Your task to perform on an android device: turn off picture-in-picture Image 0: 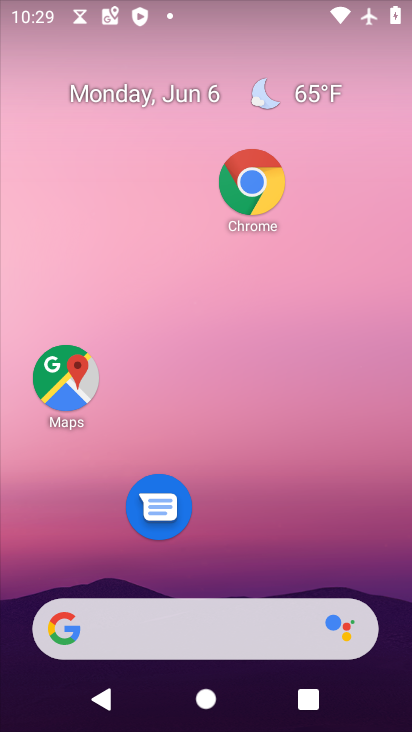
Step 0: drag from (270, 506) to (306, 200)
Your task to perform on an android device: turn off picture-in-picture Image 1: 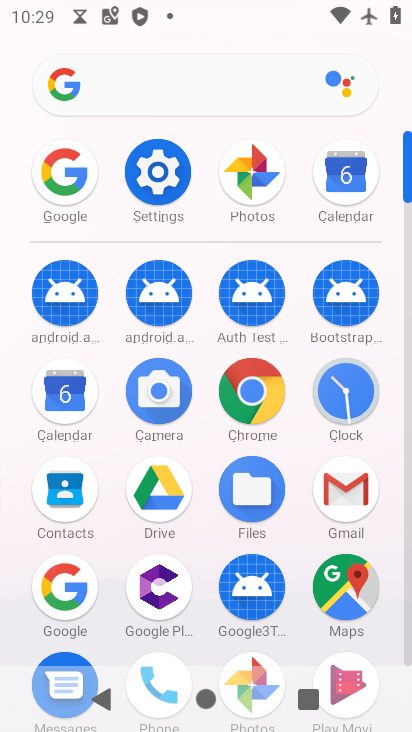
Step 1: click (157, 170)
Your task to perform on an android device: turn off picture-in-picture Image 2: 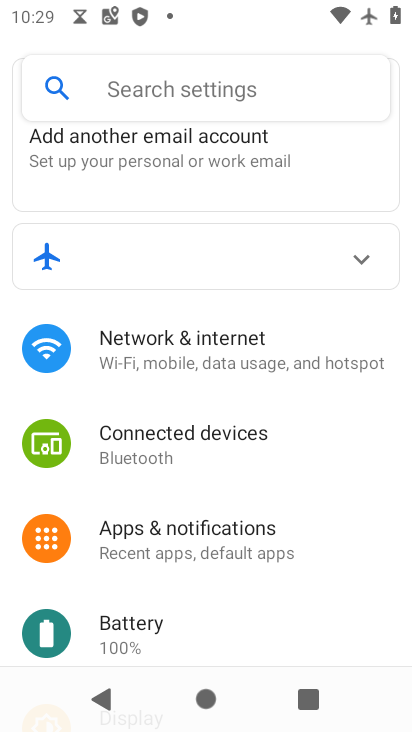
Step 2: click (254, 365)
Your task to perform on an android device: turn off picture-in-picture Image 3: 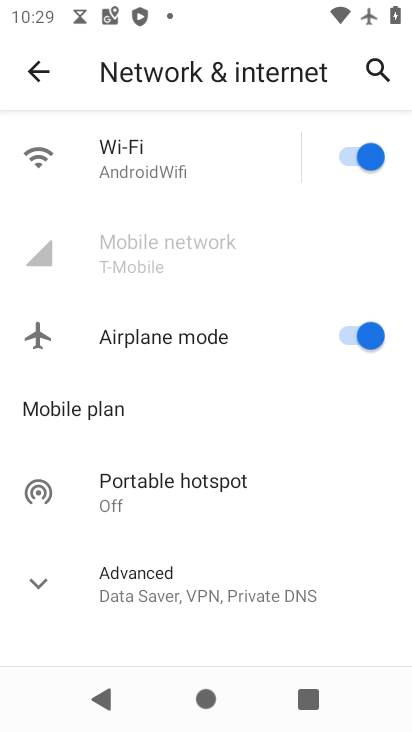
Step 3: drag from (203, 546) to (224, 190)
Your task to perform on an android device: turn off picture-in-picture Image 4: 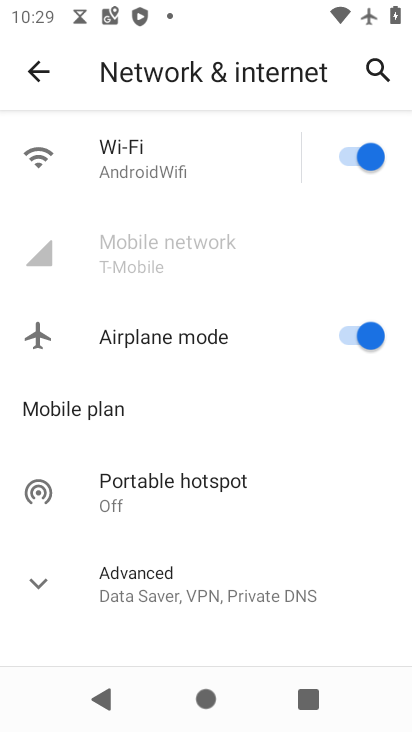
Step 4: click (17, 52)
Your task to perform on an android device: turn off picture-in-picture Image 5: 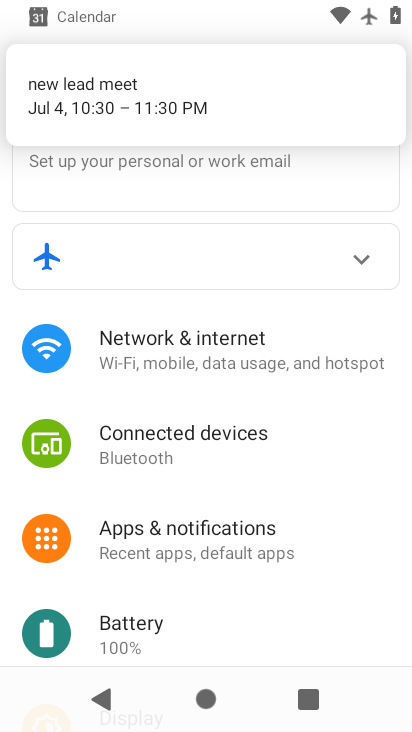
Step 5: click (213, 531)
Your task to perform on an android device: turn off picture-in-picture Image 6: 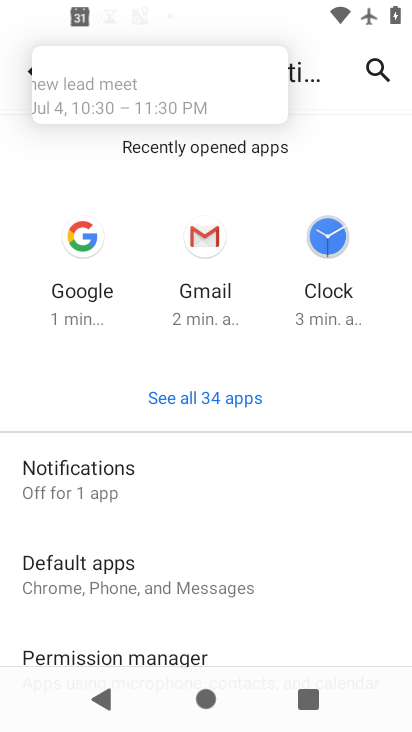
Step 6: drag from (176, 607) to (199, 328)
Your task to perform on an android device: turn off picture-in-picture Image 7: 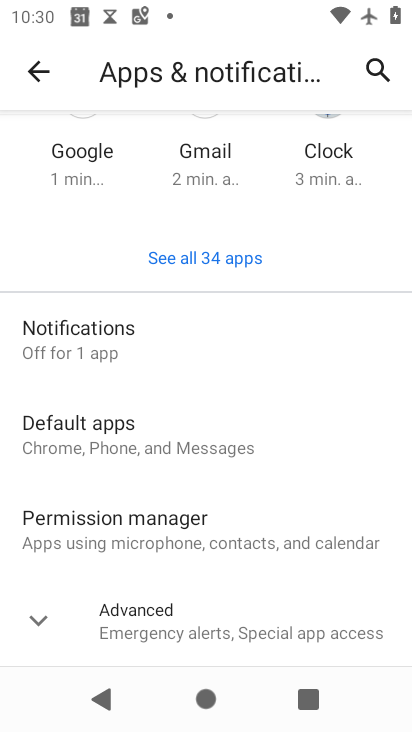
Step 7: click (175, 625)
Your task to perform on an android device: turn off picture-in-picture Image 8: 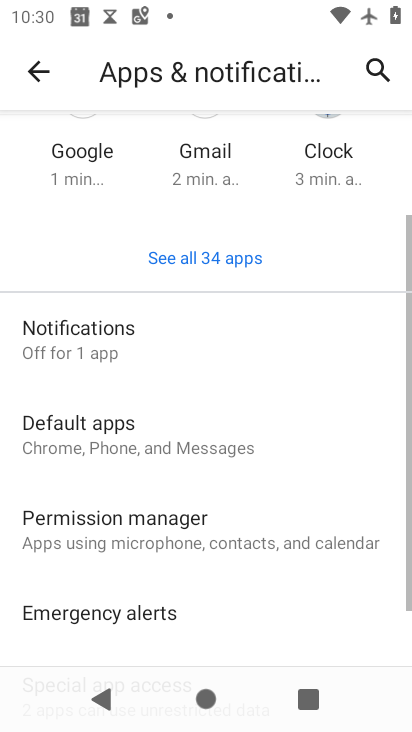
Step 8: drag from (178, 609) to (204, 231)
Your task to perform on an android device: turn off picture-in-picture Image 9: 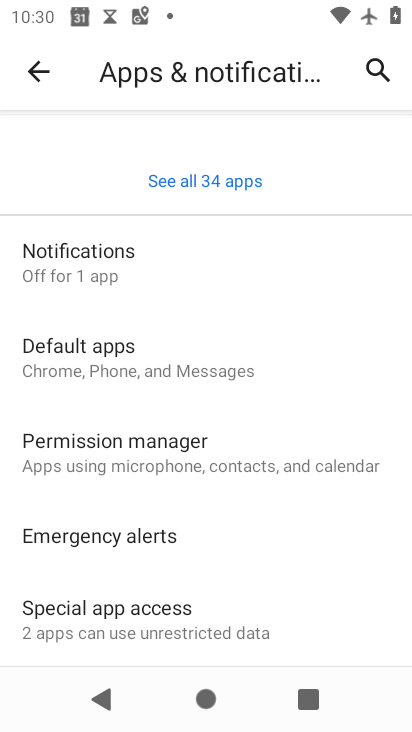
Step 9: click (169, 619)
Your task to perform on an android device: turn off picture-in-picture Image 10: 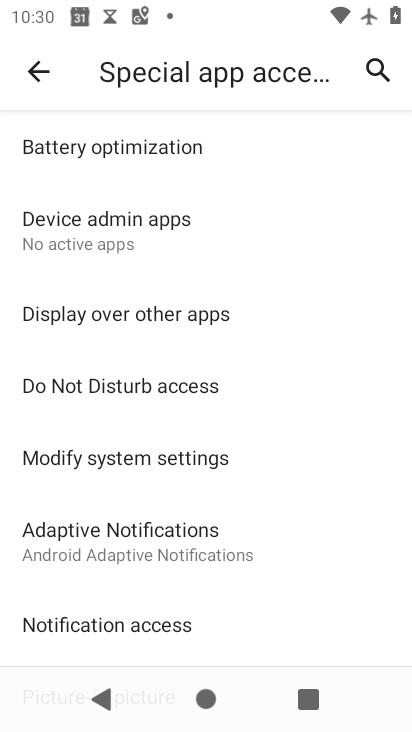
Step 10: drag from (184, 523) to (192, 271)
Your task to perform on an android device: turn off picture-in-picture Image 11: 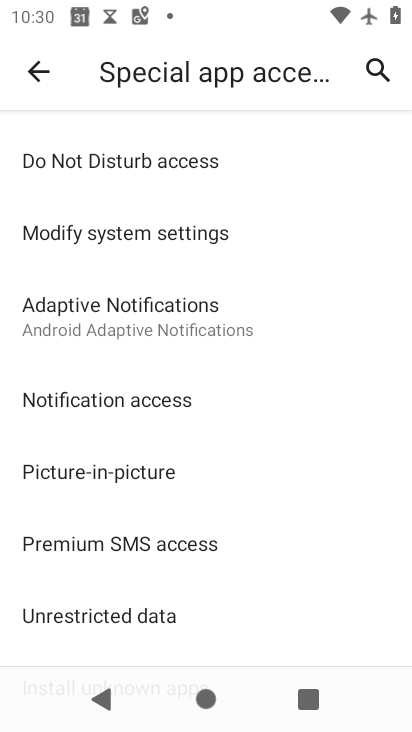
Step 11: drag from (179, 574) to (200, 284)
Your task to perform on an android device: turn off picture-in-picture Image 12: 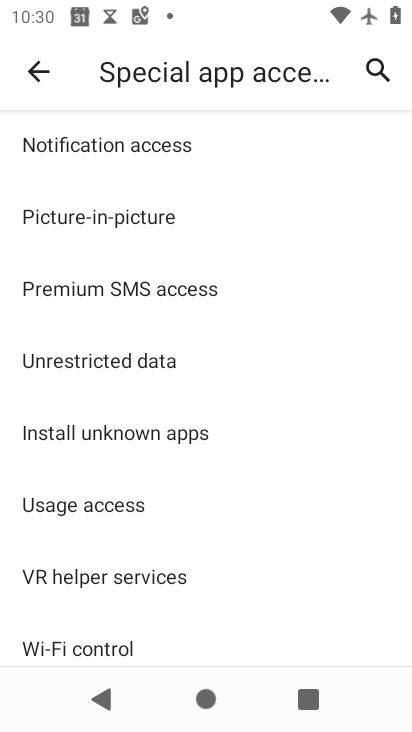
Step 12: drag from (139, 572) to (182, 270)
Your task to perform on an android device: turn off picture-in-picture Image 13: 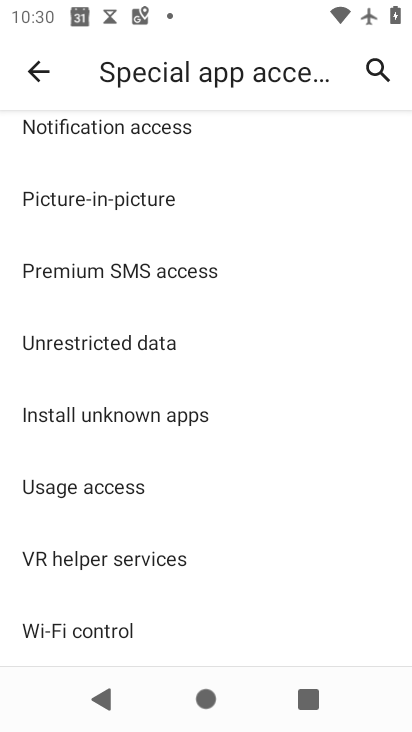
Step 13: drag from (180, 208) to (201, 490)
Your task to perform on an android device: turn off picture-in-picture Image 14: 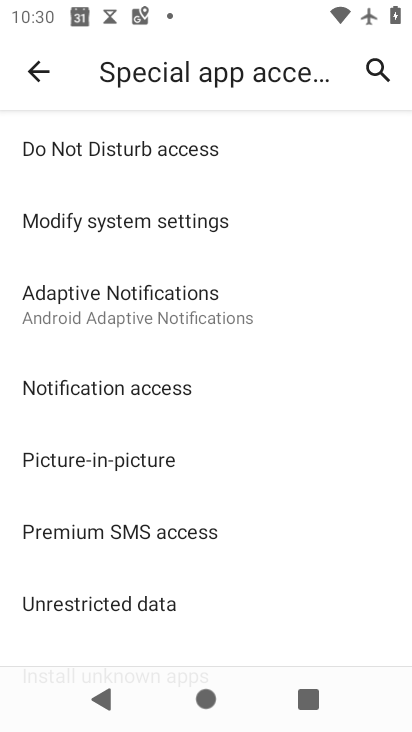
Step 14: click (135, 458)
Your task to perform on an android device: turn off picture-in-picture Image 15: 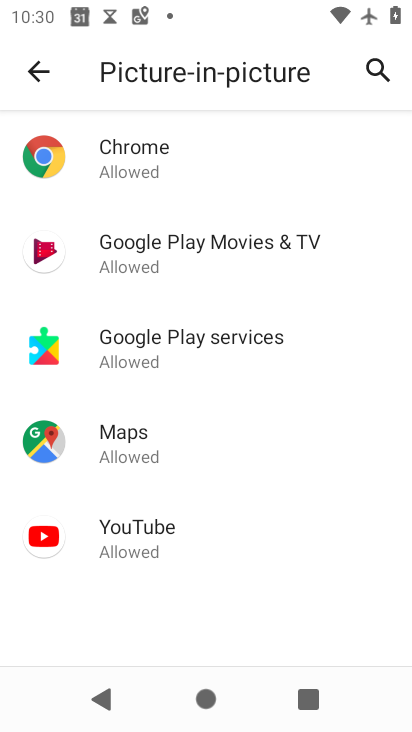
Step 15: click (122, 519)
Your task to perform on an android device: turn off picture-in-picture Image 16: 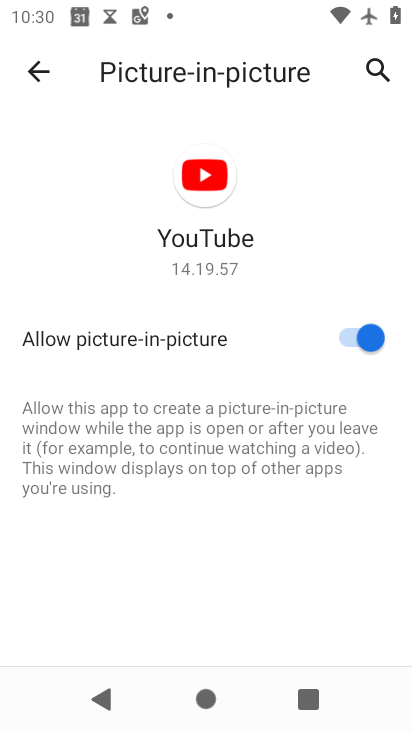
Step 16: click (347, 337)
Your task to perform on an android device: turn off picture-in-picture Image 17: 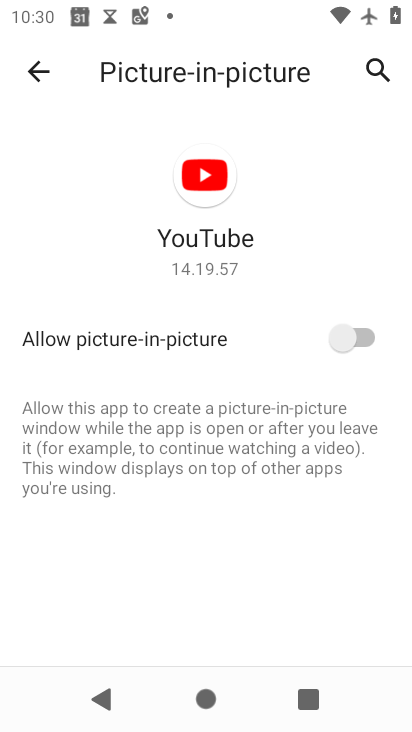
Step 17: task complete